Your task to perform on an android device: change text size in settings app Image 0: 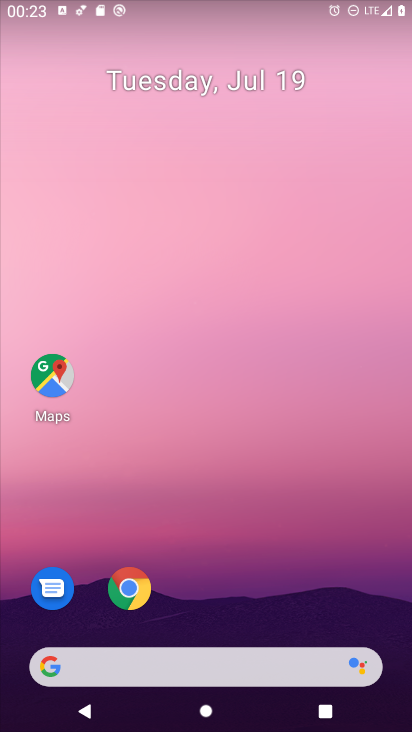
Step 0: drag from (383, 621) to (334, 53)
Your task to perform on an android device: change text size in settings app Image 1: 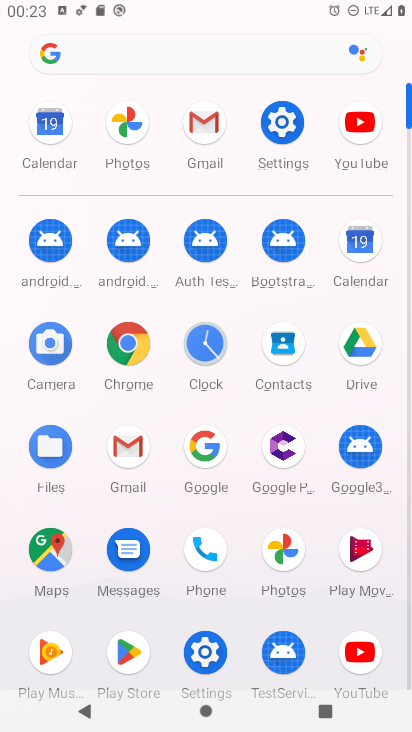
Step 1: click (203, 650)
Your task to perform on an android device: change text size in settings app Image 2: 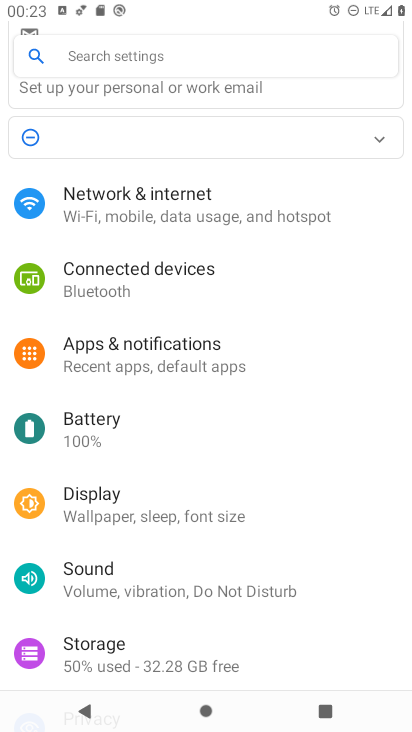
Step 2: click (94, 503)
Your task to perform on an android device: change text size in settings app Image 3: 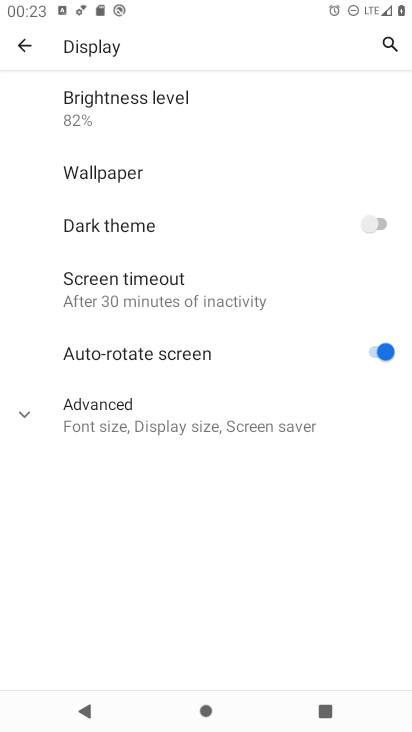
Step 3: click (21, 410)
Your task to perform on an android device: change text size in settings app Image 4: 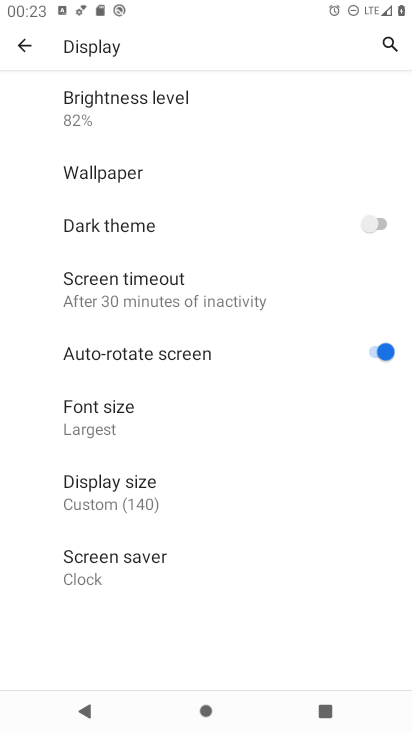
Step 4: click (88, 410)
Your task to perform on an android device: change text size in settings app Image 5: 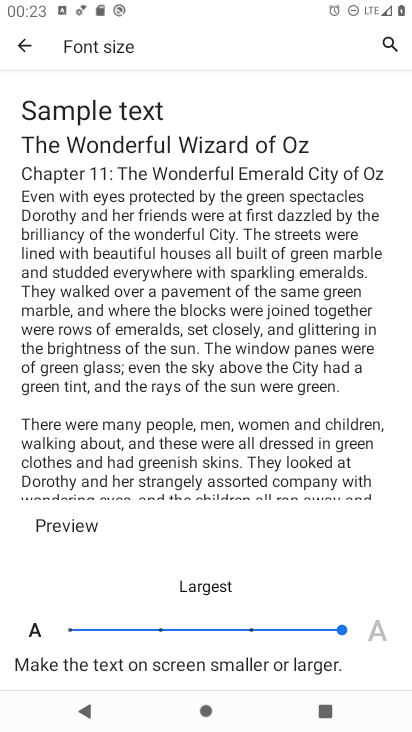
Step 5: click (249, 631)
Your task to perform on an android device: change text size in settings app Image 6: 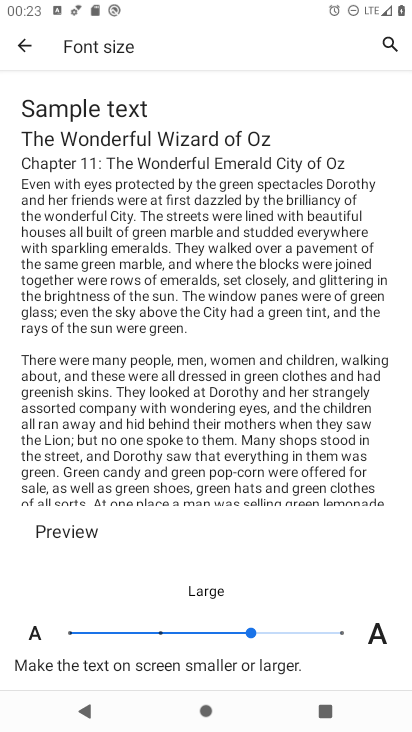
Step 6: task complete